Your task to perform on an android device: turn on airplane mode Image 0: 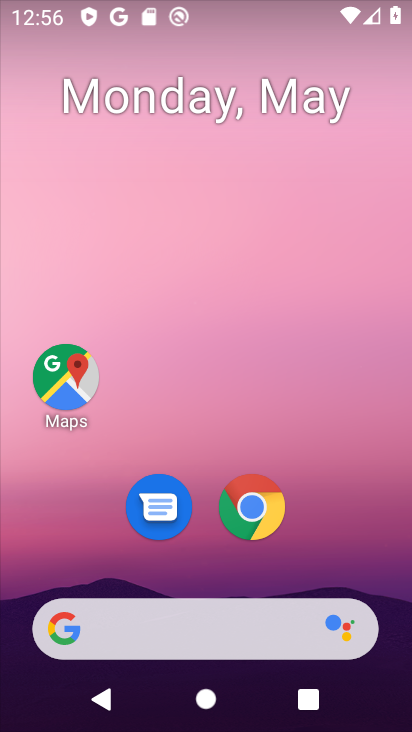
Step 0: drag from (155, 584) to (275, 112)
Your task to perform on an android device: turn on airplane mode Image 1: 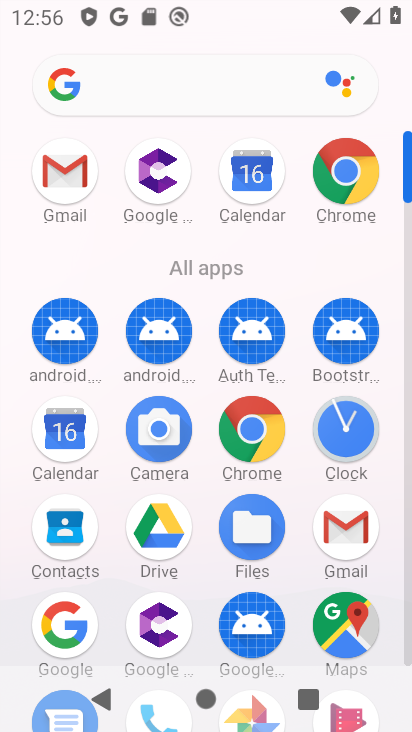
Step 1: drag from (157, 616) to (279, 369)
Your task to perform on an android device: turn on airplane mode Image 2: 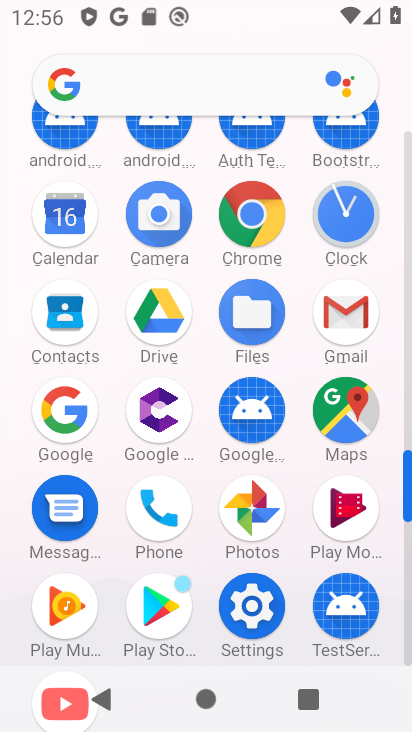
Step 2: click (256, 604)
Your task to perform on an android device: turn on airplane mode Image 3: 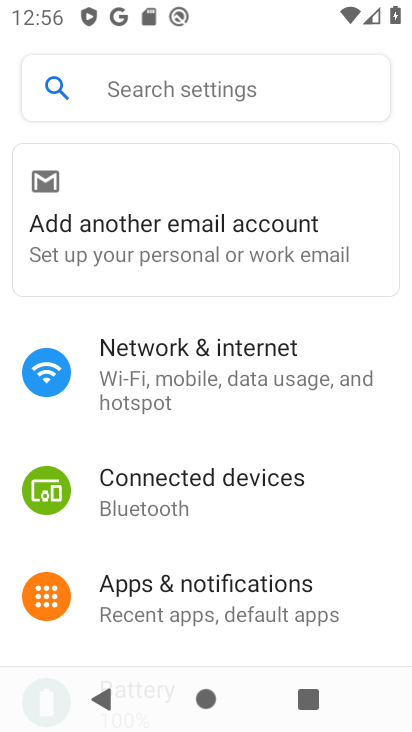
Step 3: click (252, 391)
Your task to perform on an android device: turn on airplane mode Image 4: 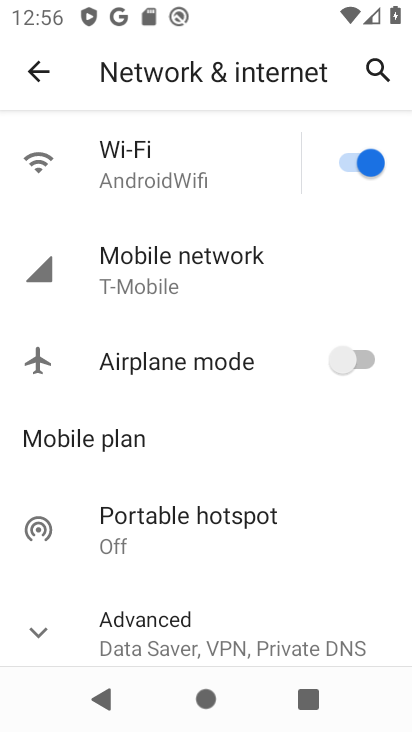
Step 4: click (374, 360)
Your task to perform on an android device: turn on airplane mode Image 5: 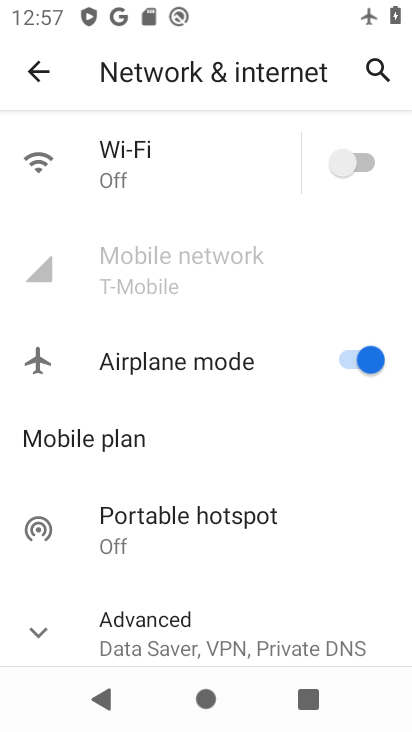
Step 5: task complete